Your task to perform on an android device: What is the recent news? Image 0: 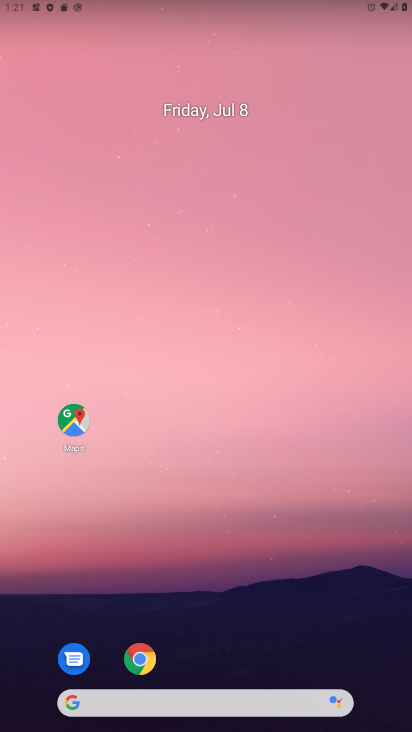
Step 0: drag from (8, 243) to (405, 321)
Your task to perform on an android device: What is the recent news? Image 1: 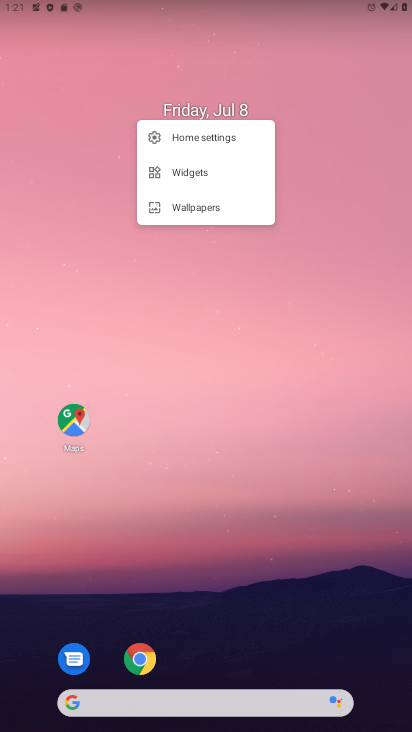
Step 1: click (64, 262)
Your task to perform on an android device: What is the recent news? Image 2: 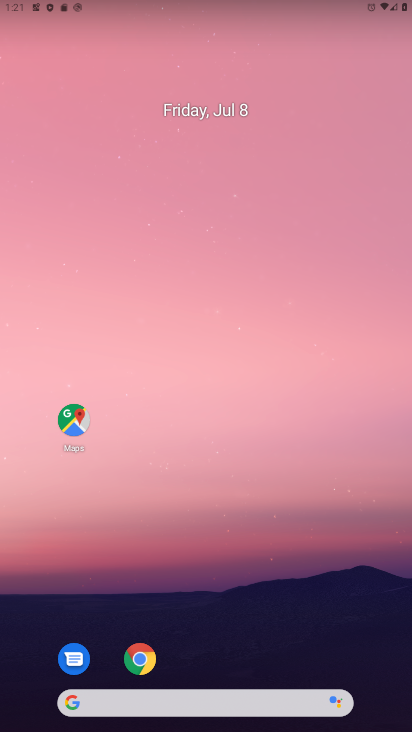
Step 2: drag from (6, 252) to (411, 446)
Your task to perform on an android device: What is the recent news? Image 3: 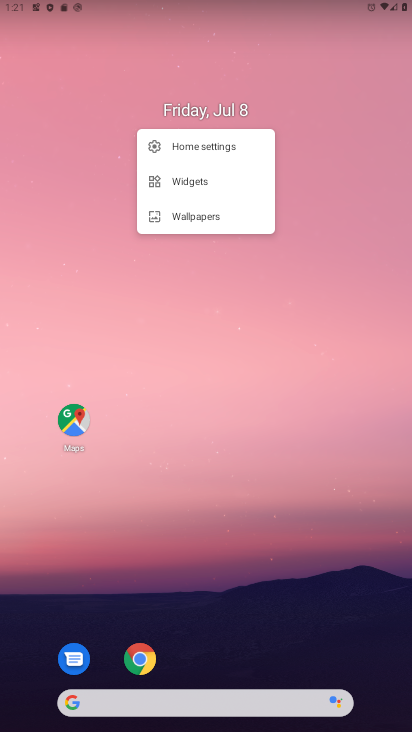
Step 3: click (57, 281)
Your task to perform on an android device: What is the recent news? Image 4: 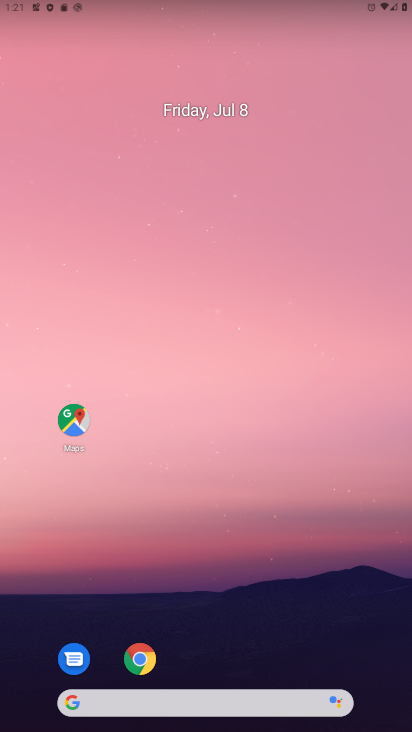
Step 4: task complete